Your task to perform on an android device: Go to Yahoo.com Image 0: 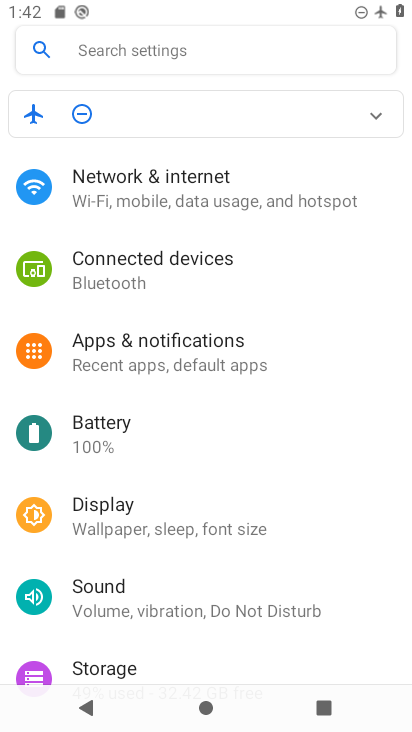
Step 0: press home button
Your task to perform on an android device: Go to Yahoo.com Image 1: 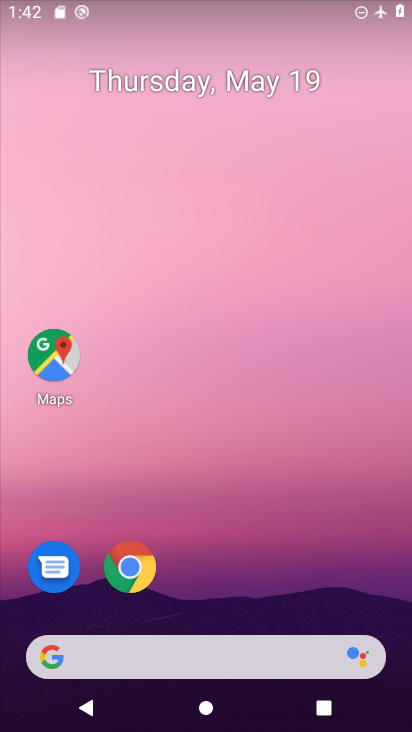
Step 1: click (152, 656)
Your task to perform on an android device: Go to Yahoo.com Image 2: 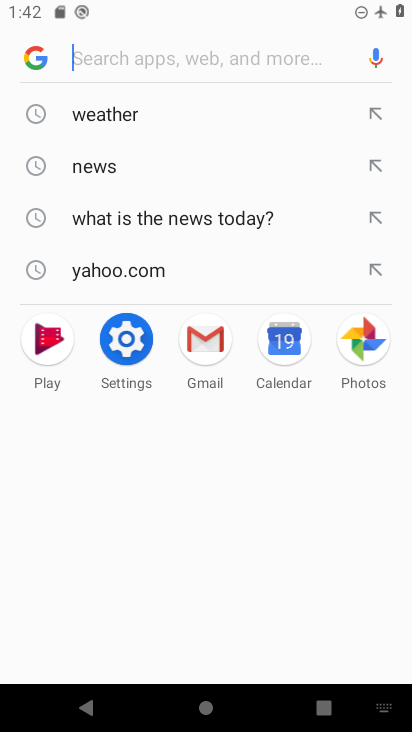
Step 2: type "yahoo.com"
Your task to perform on an android device: Go to Yahoo.com Image 3: 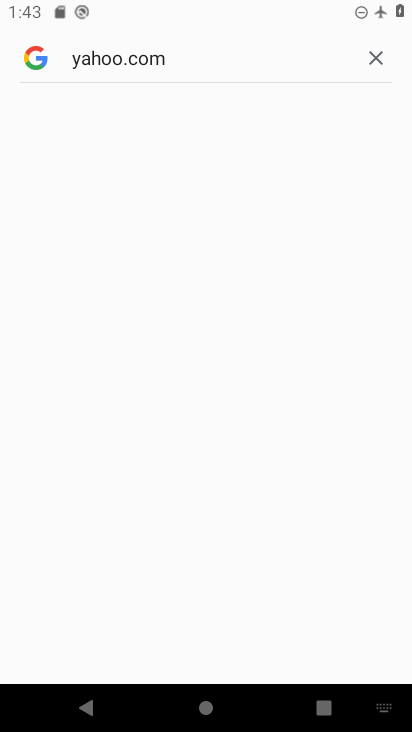
Step 3: task complete